Your task to perform on an android device: add a contact Image 0: 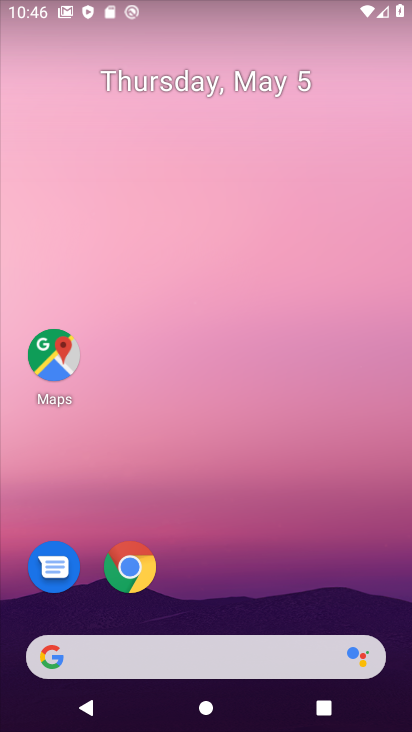
Step 0: drag from (173, 580) to (299, 101)
Your task to perform on an android device: add a contact Image 1: 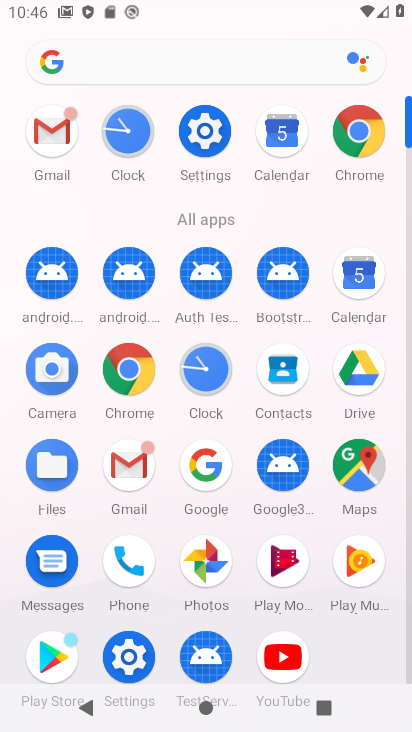
Step 1: click (290, 380)
Your task to perform on an android device: add a contact Image 2: 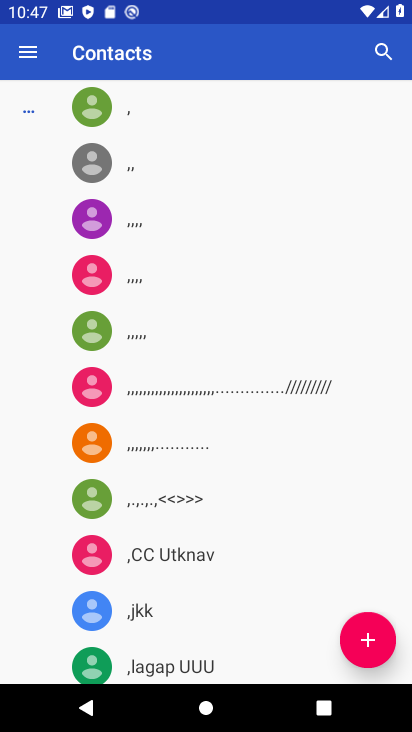
Step 2: click (373, 646)
Your task to perform on an android device: add a contact Image 3: 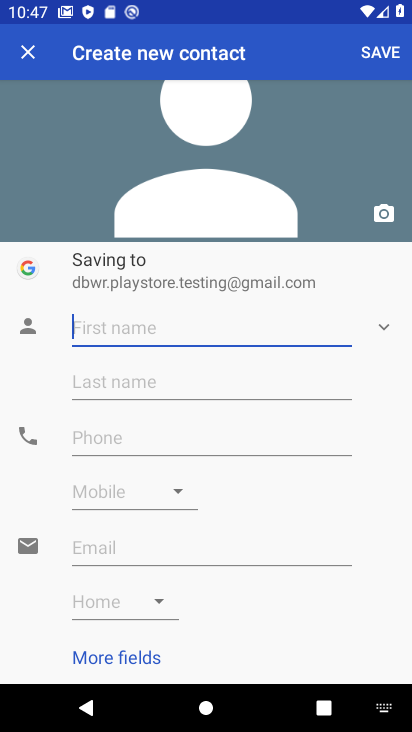
Step 3: click (103, 332)
Your task to perform on an android device: add a contact Image 4: 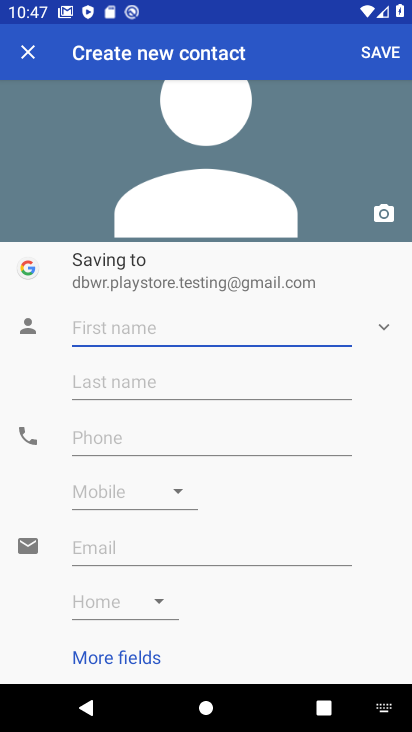
Step 4: type "fbbf"
Your task to perform on an android device: add a contact Image 5: 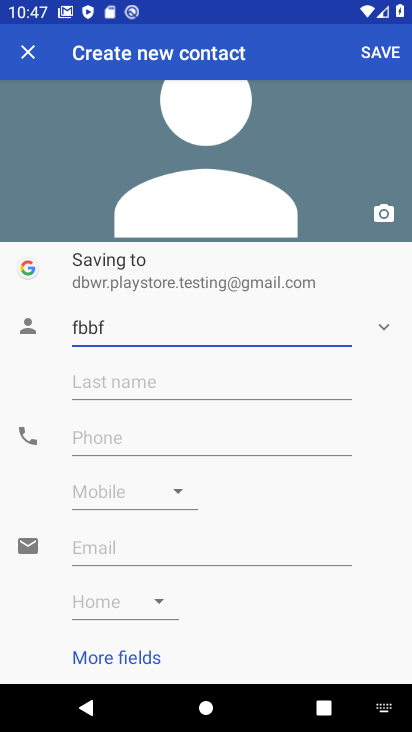
Step 5: click (133, 440)
Your task to perform on an android device: add a contact Image 6: 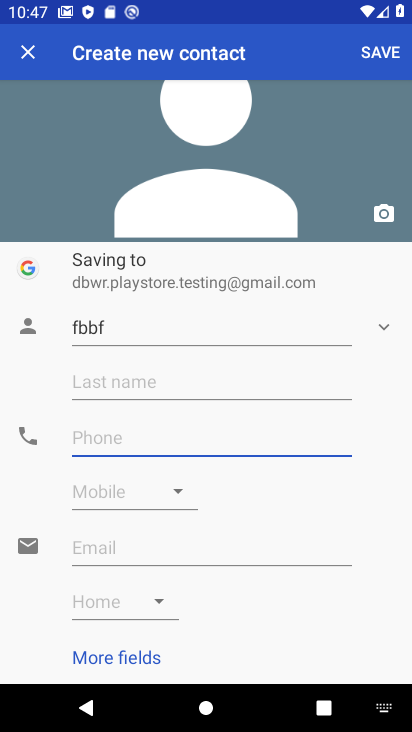
Step 6: type "75757"
Your task to perform on an android device: add a contact Image 7: 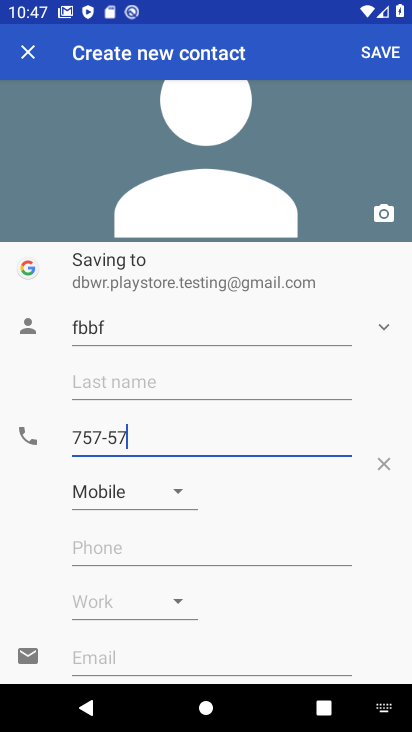
Step 7: click (376, 54)
Your task to perform on an android device: add a contact Image 8: 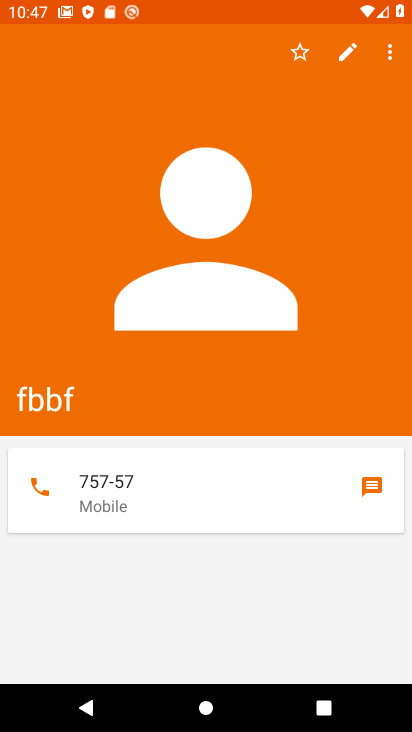
Step 8: task complete